Your task to perform on an android device: Empty the shopping cart on amazon. Image 0: 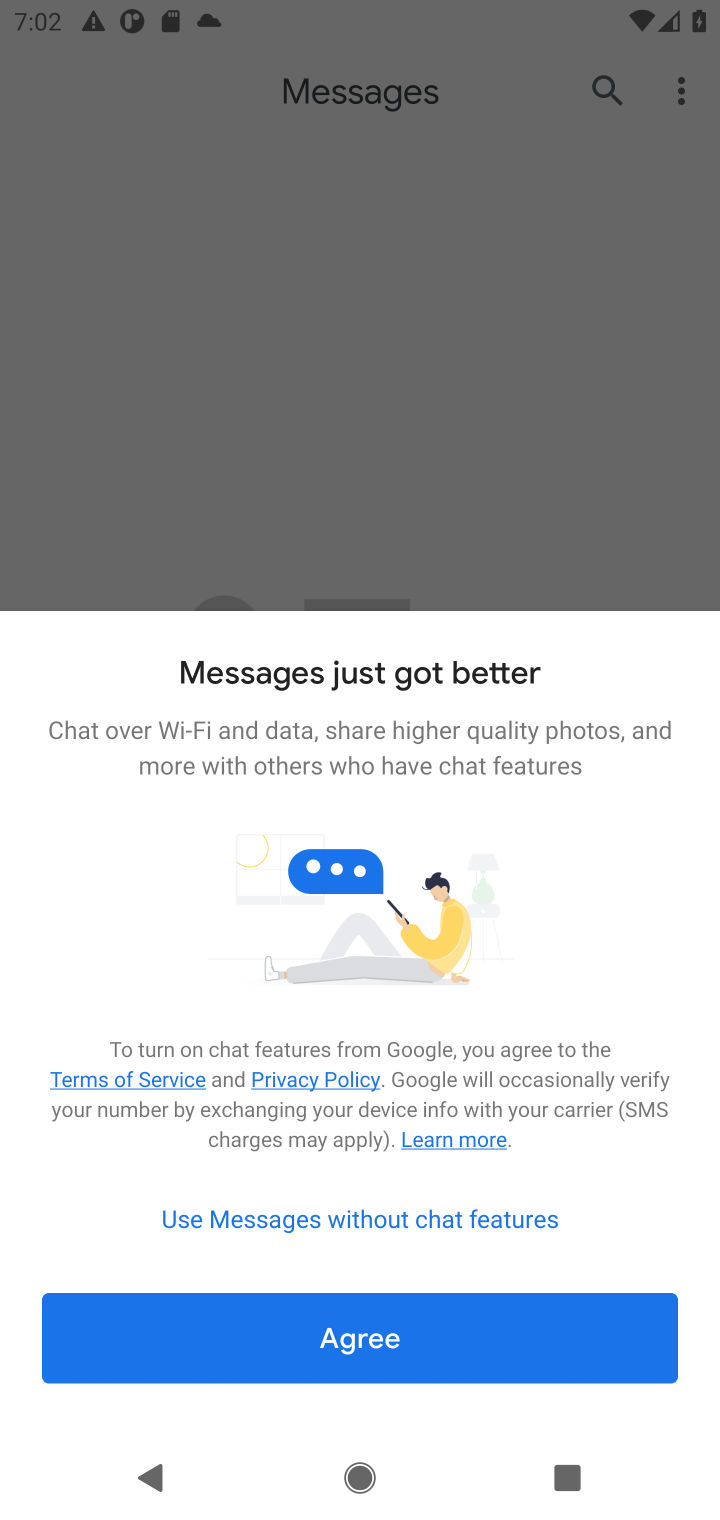
Step 0: press home button
Your task to perform on an android device: Empty the shopping cart on amazon. Image 1: 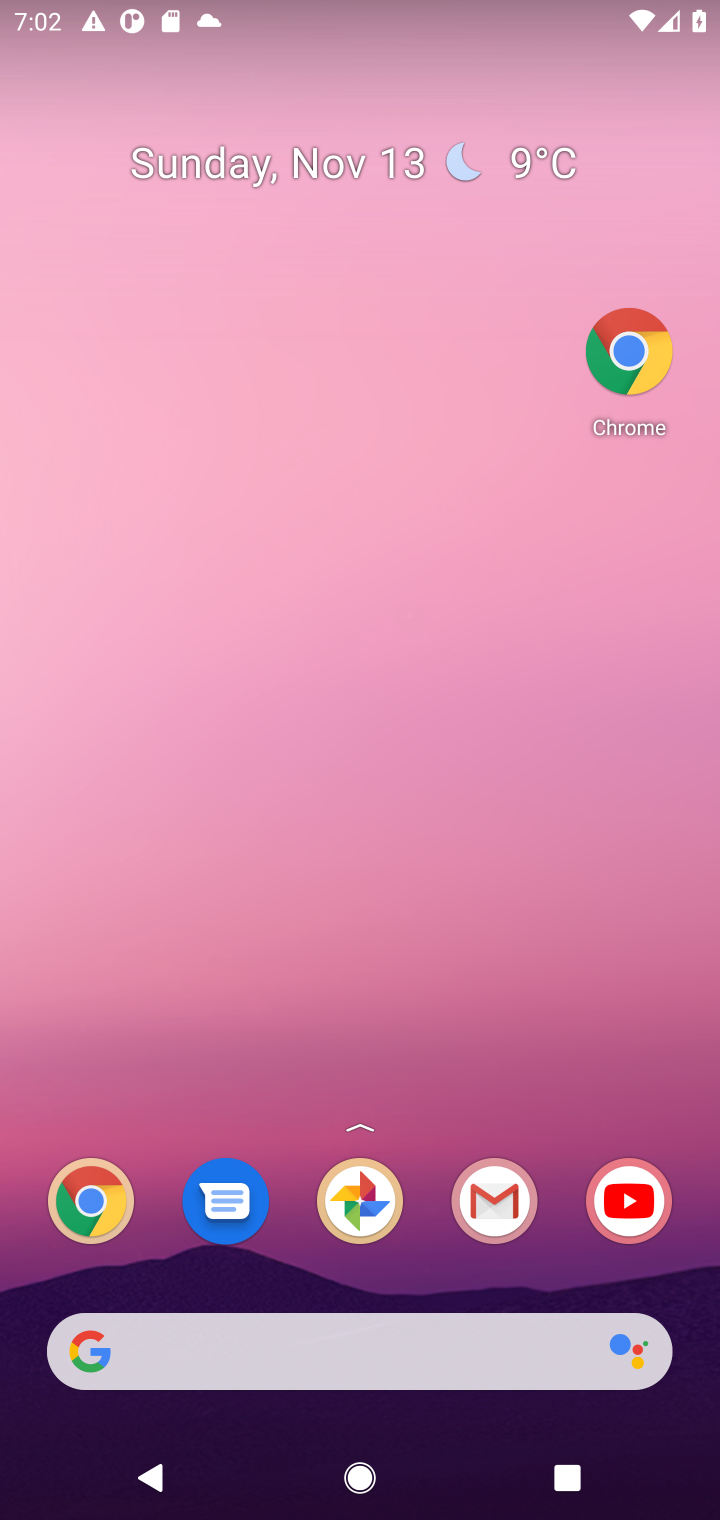
Step 1: drag from (430, 706) to (419, 297)
Your task to perform on an android device: Empty the shopping cart on amazon. Image 2: 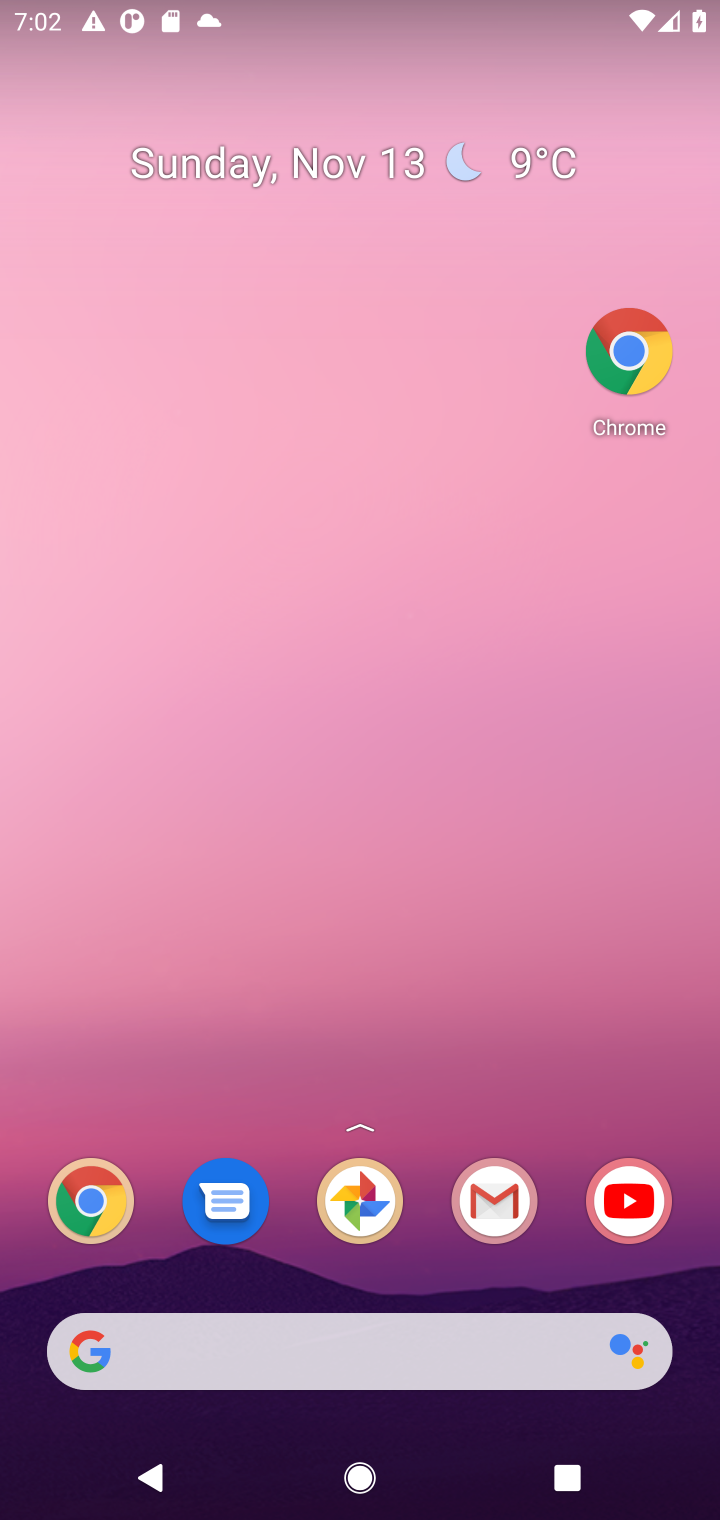
Step 2: drag from (442, 1216) to (385, 56)
Your task to perform on an android device: Empty the shopping cart on amazon. Image 3: 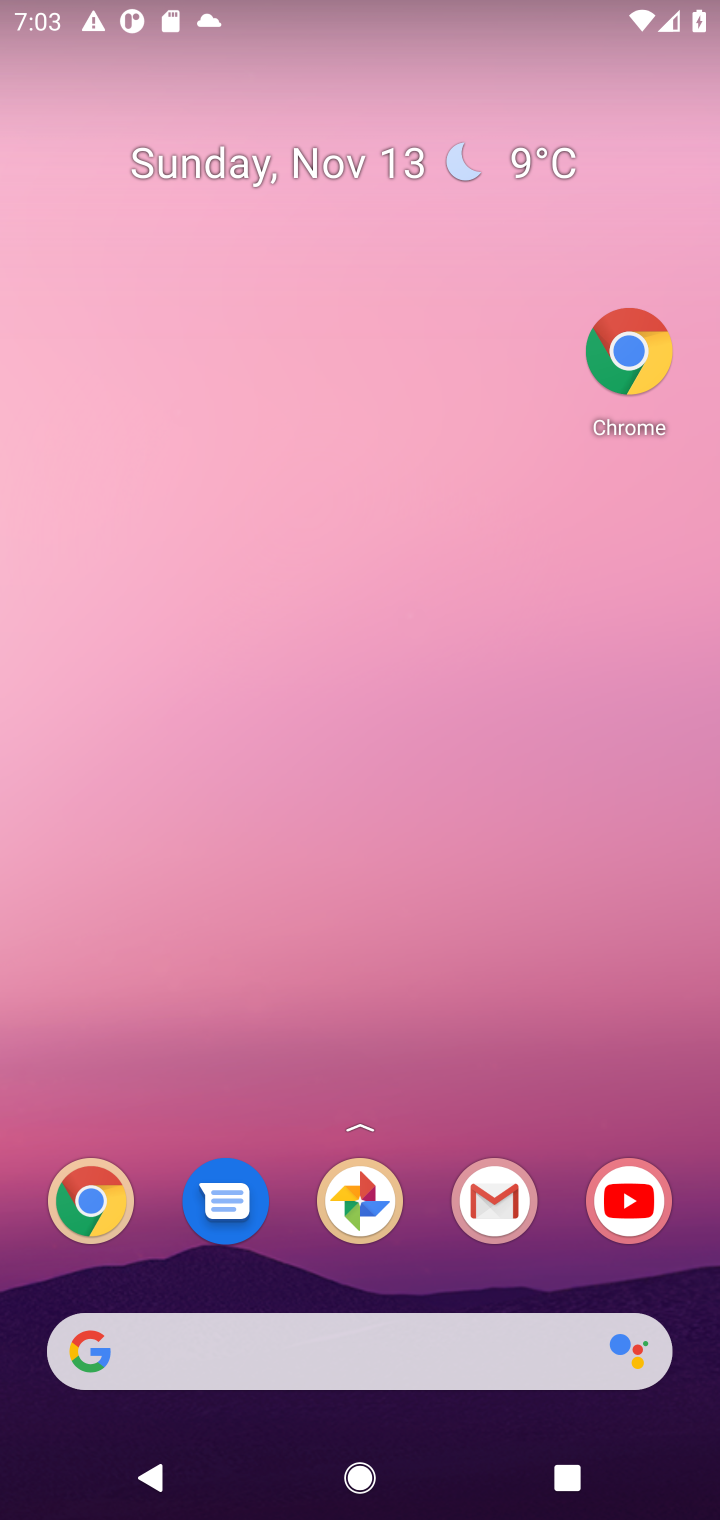
Step 3: drag from (419, 1252) to (241, 181)
Your task to perform on an android device: Empty the shopping cart on amazon. Image 4: 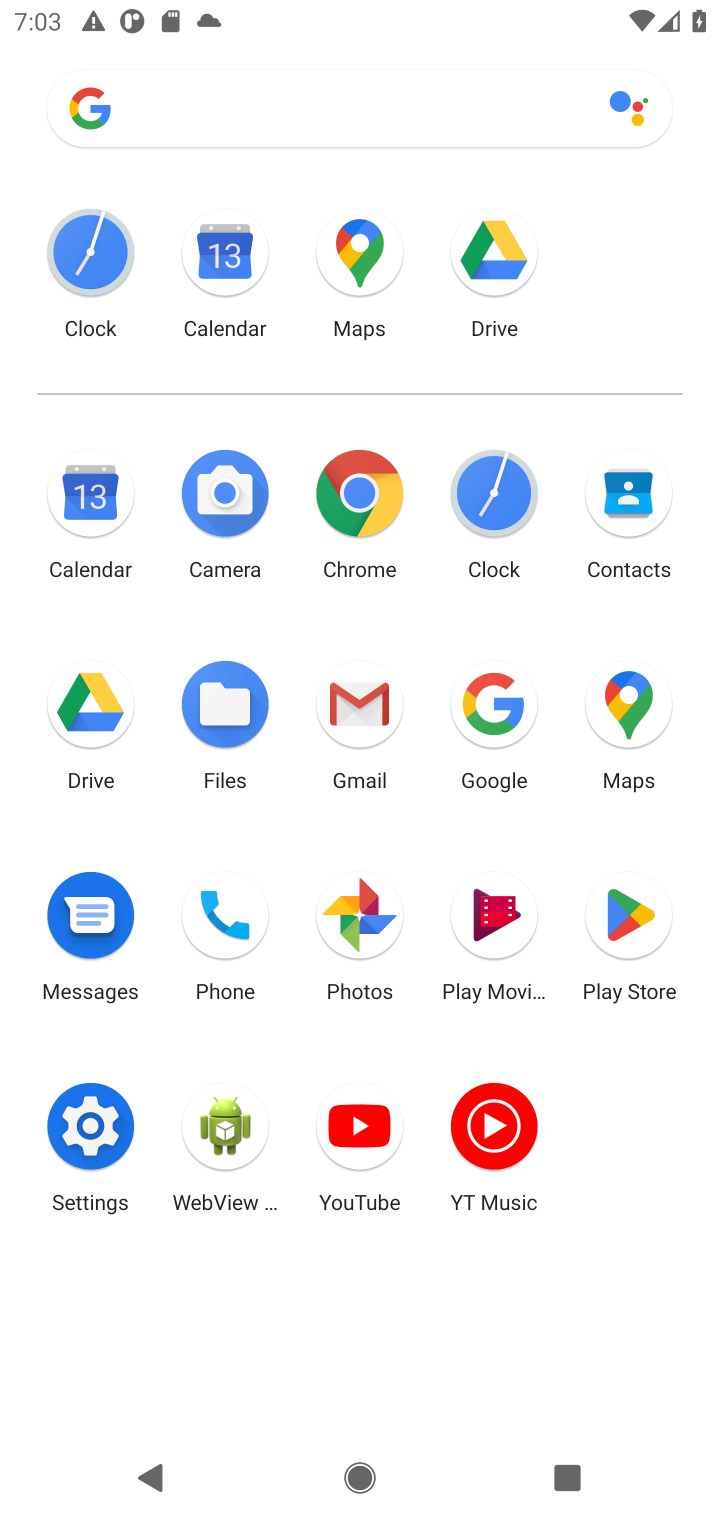
Step 4: click (353, 499)
Your task to perform on an android device: Empty the shopping cart on amazon. Image 5: 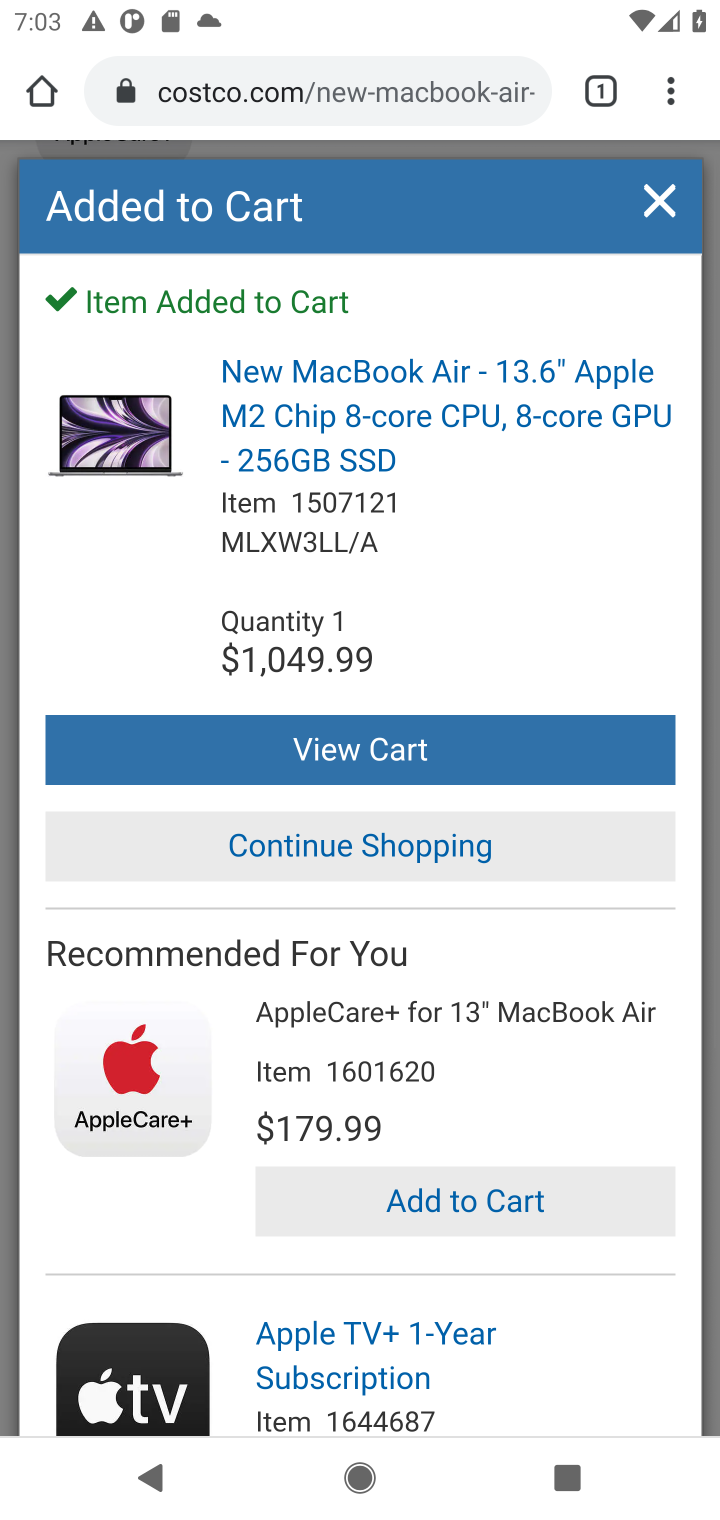
Step 5: click (382, 112)
Your task to perform on an android device: Empty the shopping cart on amazon. Image 6: 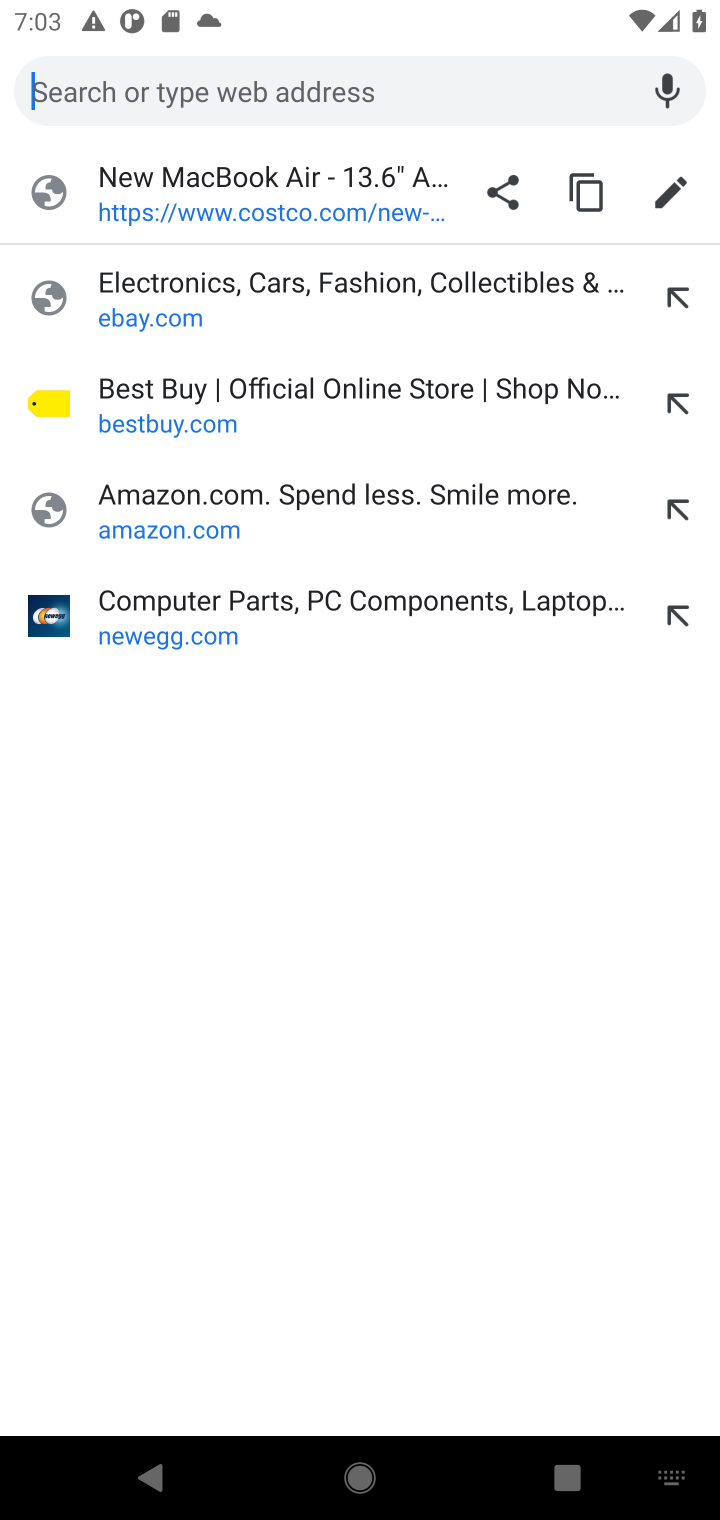
Step 6: type "amazon.com"
Your task to perform on an android device: Empty the shopping cart on amazon. Image 7: 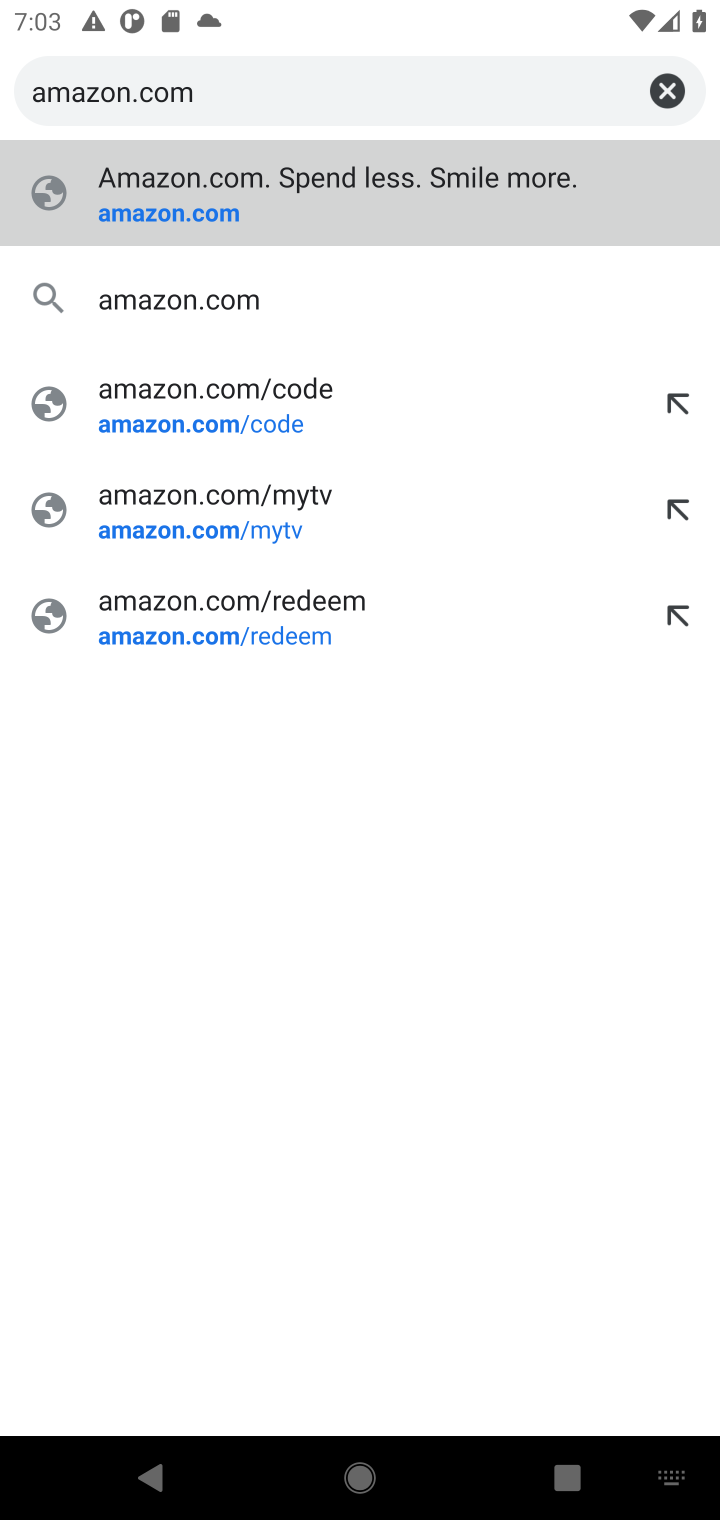
Step 7: press enter
Your task to perform on an android device: Empty the shopping cart on amazon. Image 8: 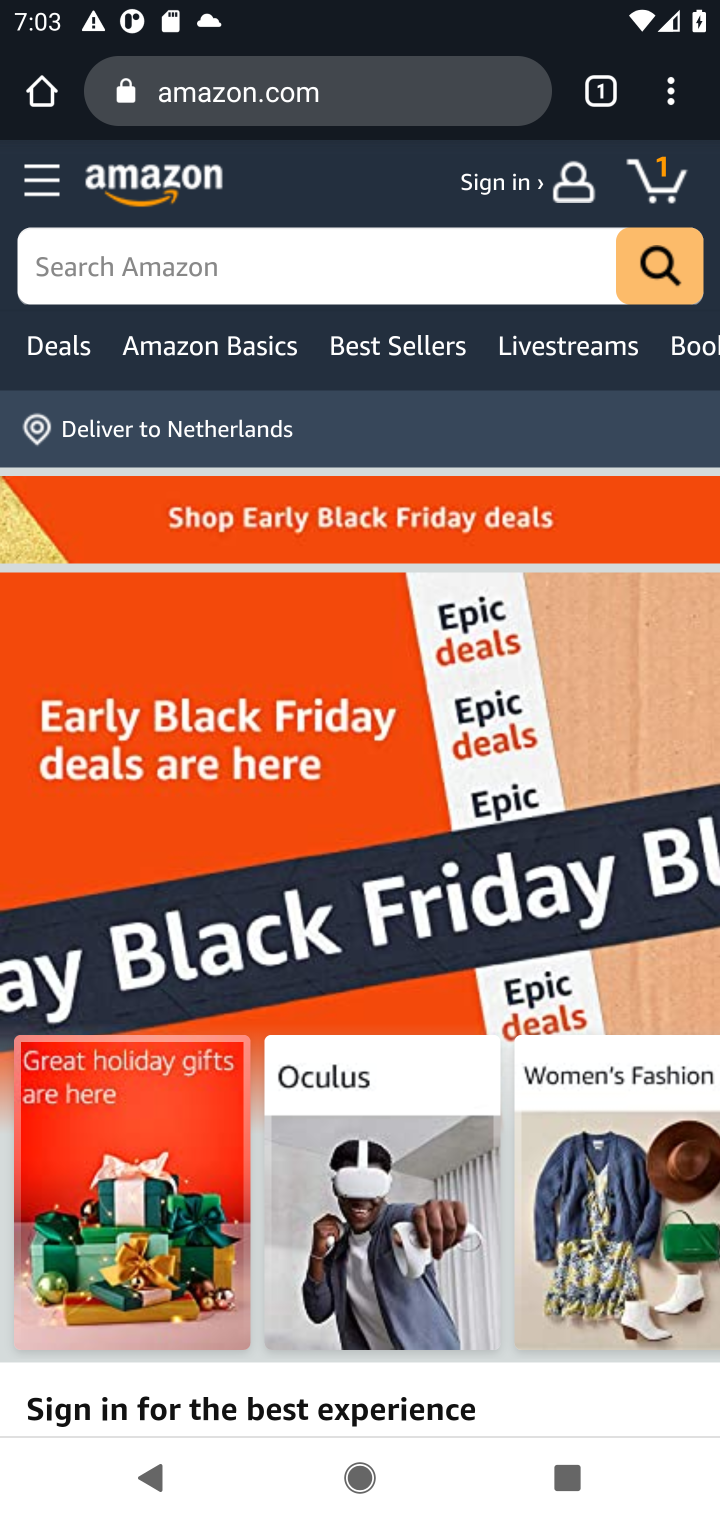
Step 8: click (657, 183)
Your task to perform on an android device: Empty the shopping cart on amazon. Image 9: 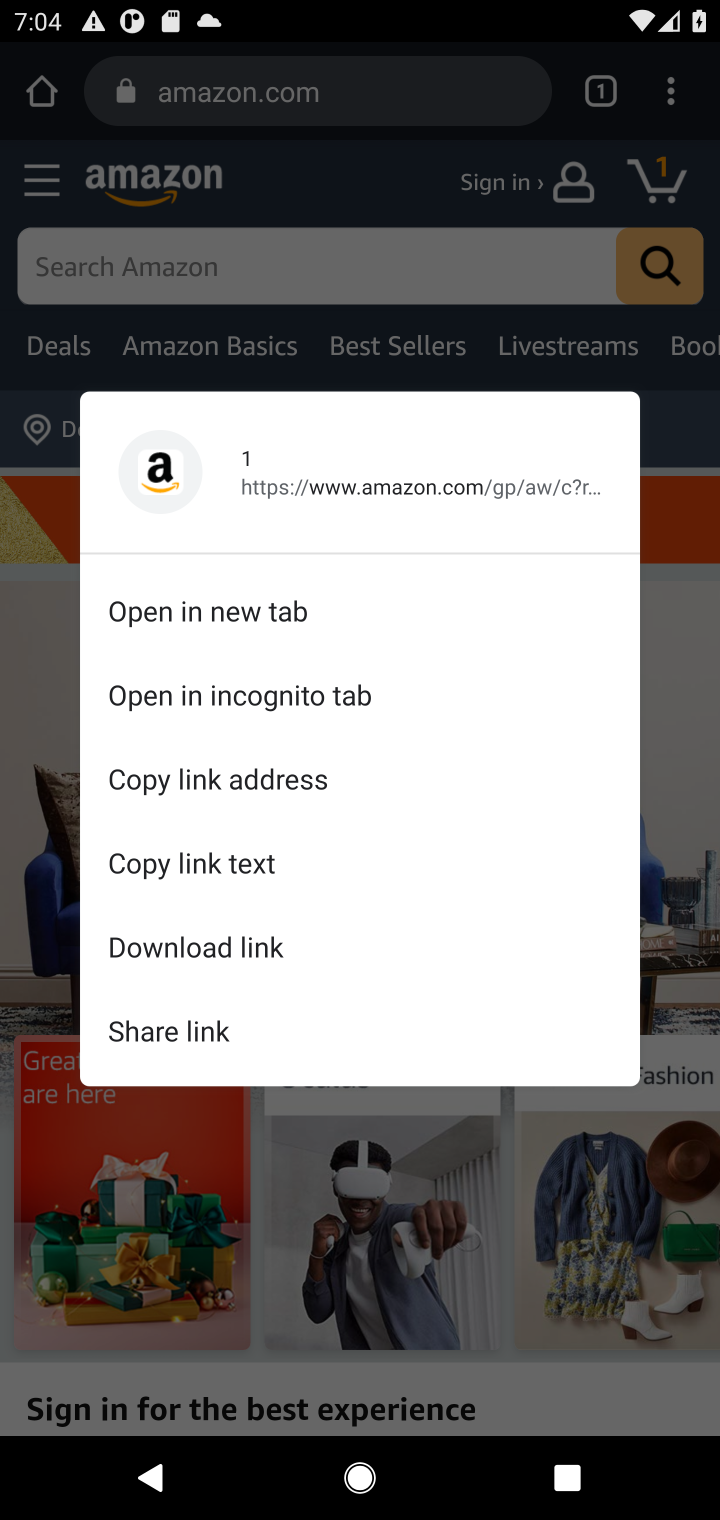
Step 9: click (477, 283)
Your task to perform on an android device: Empty the shopping cart on amazon. Image 10: 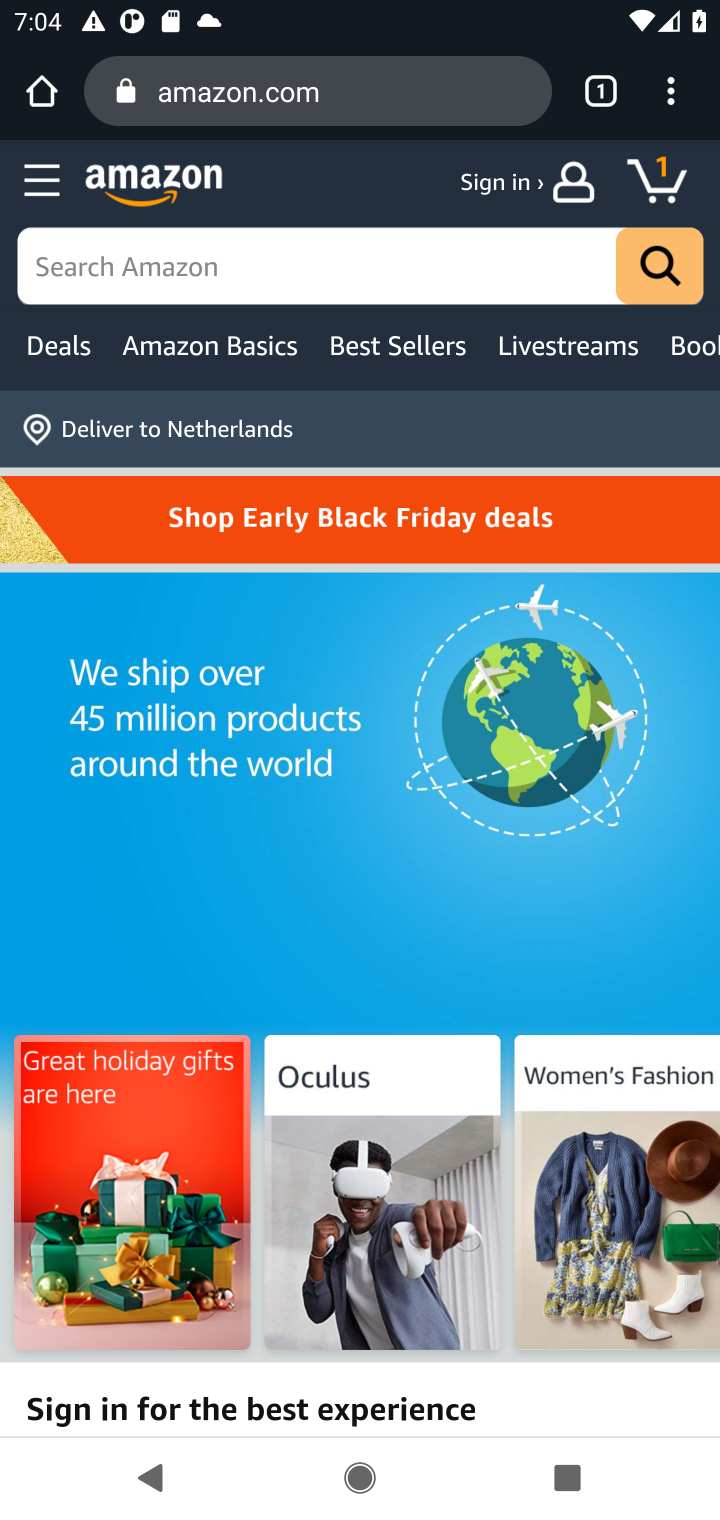
Step 10: click (659, 169)
Your task to perform on an android device: Empty the shopping cart on amazon. Image 11: 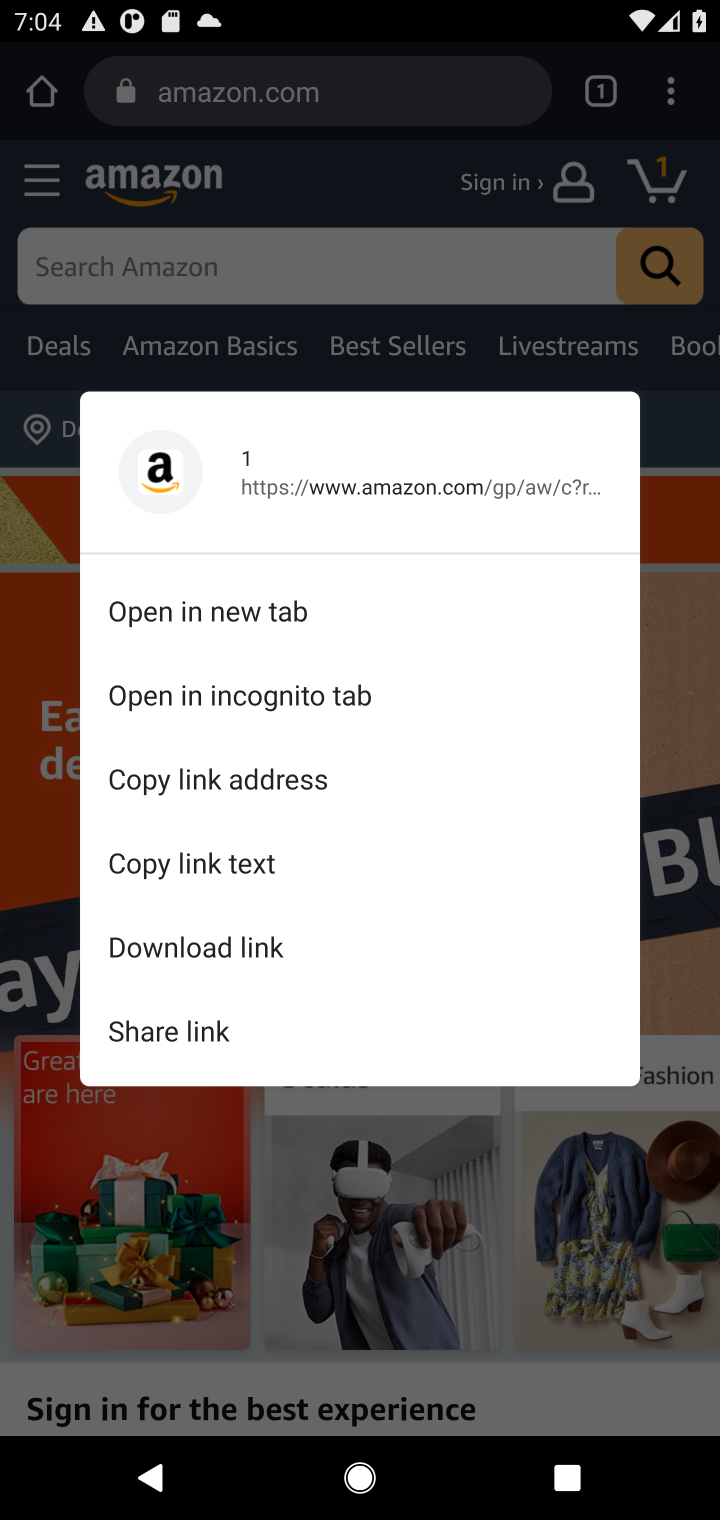
Step 11: click (612, 288)
Your task to perform on an android device: Empty the shopping cart on amazon. Image 12: 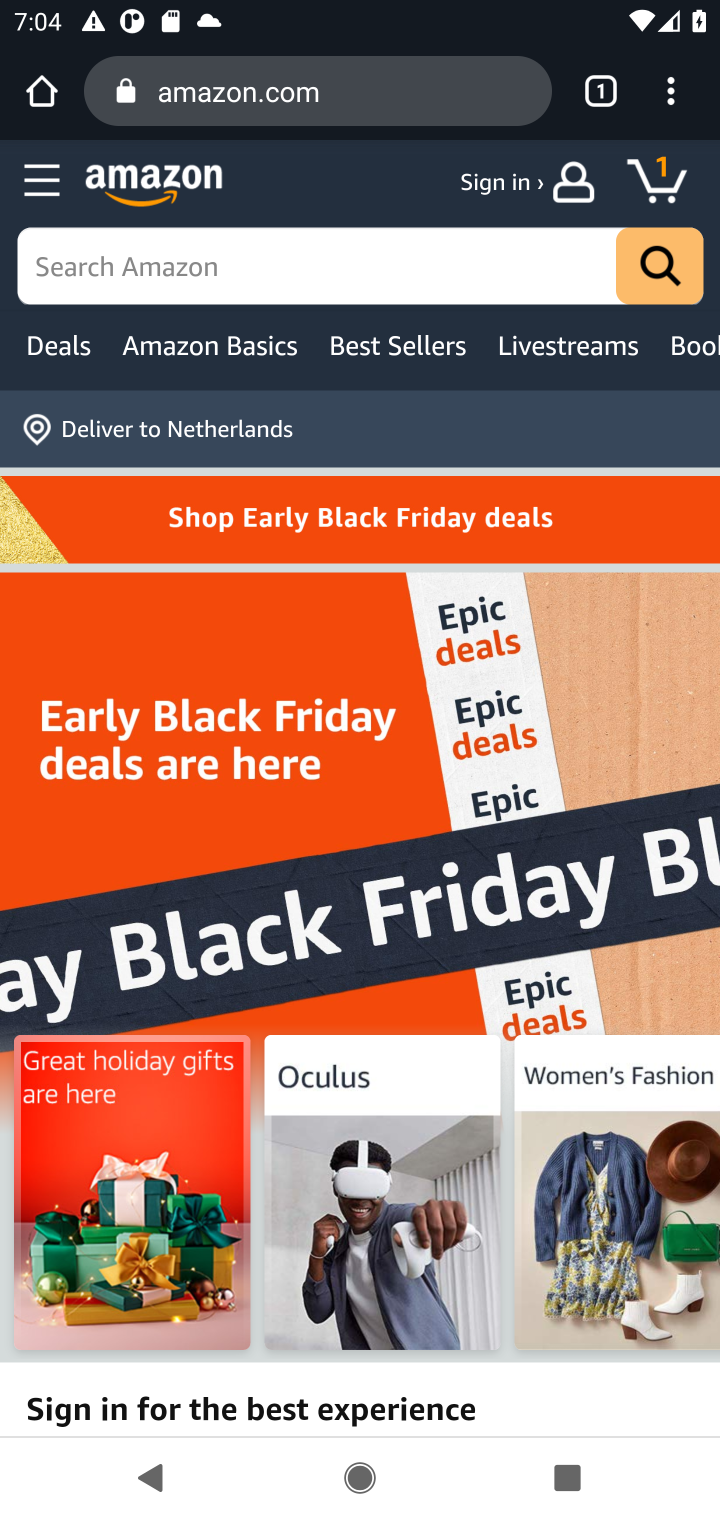
Step 12: click (653, 177)
Your task to perform on an android device: Empty the shopping cart on amazon. Image 13: 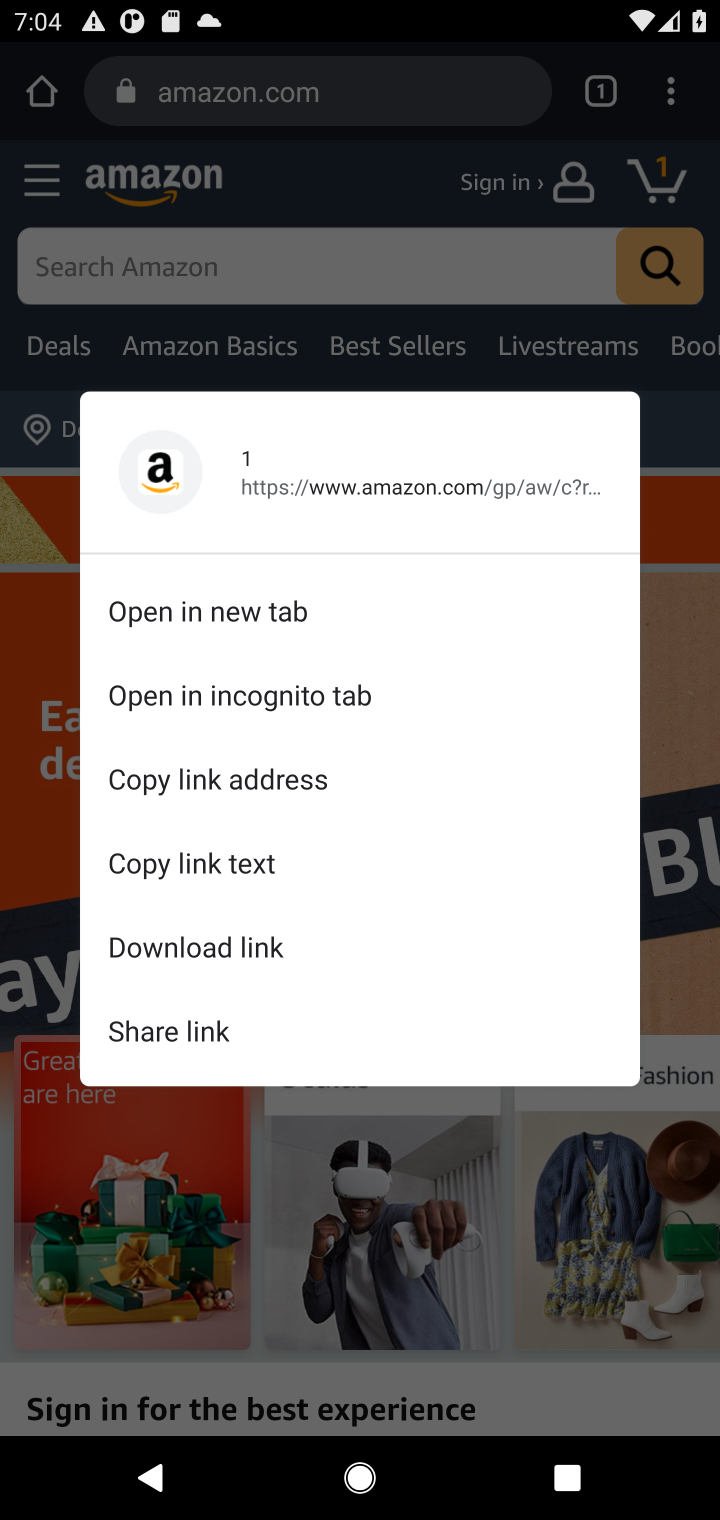
Step 13: click (662, 180)
Your task to perform on an android device: Empty the shopping cart on amazon. Image 14: 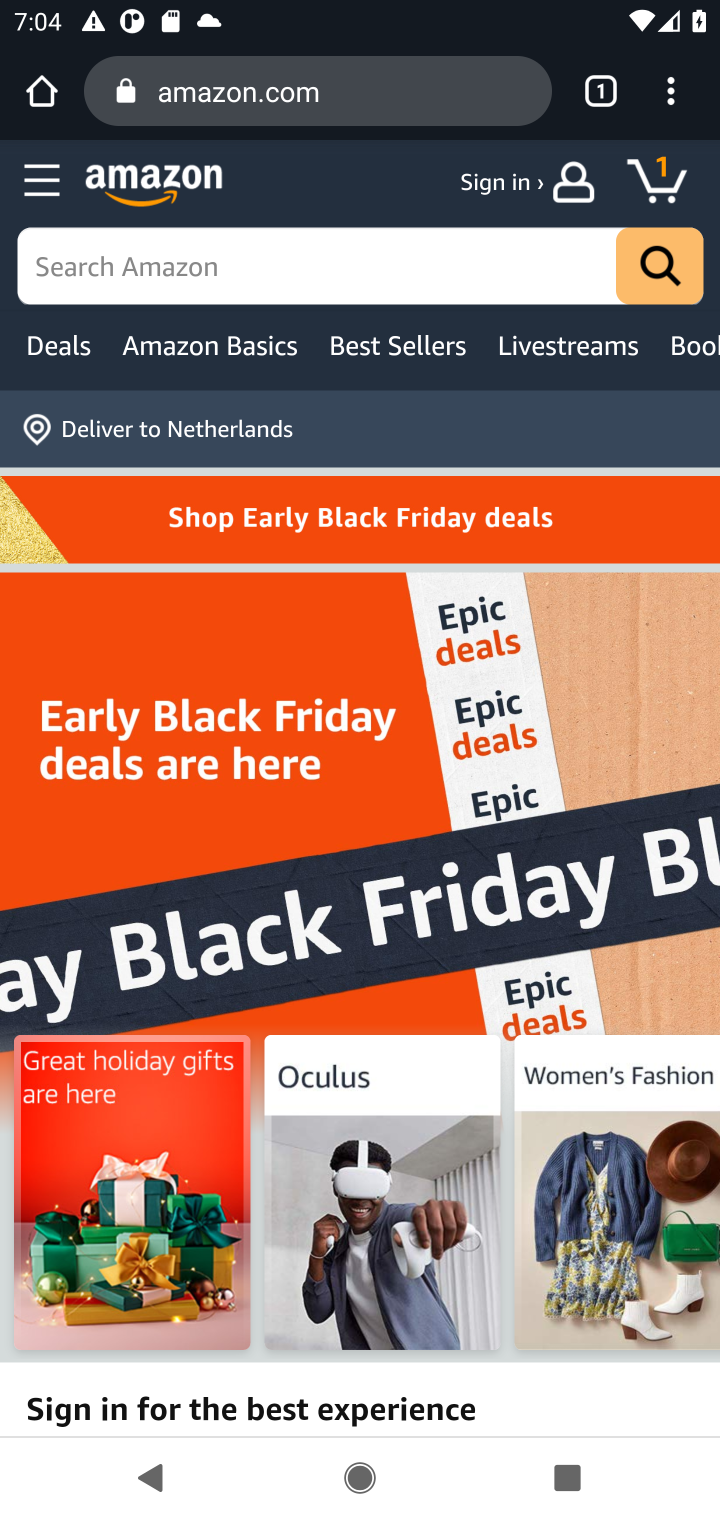
Step 14: click (662, 180)
Your task to perform on an android device: Empty the shopping cart on amazon. Image 15: 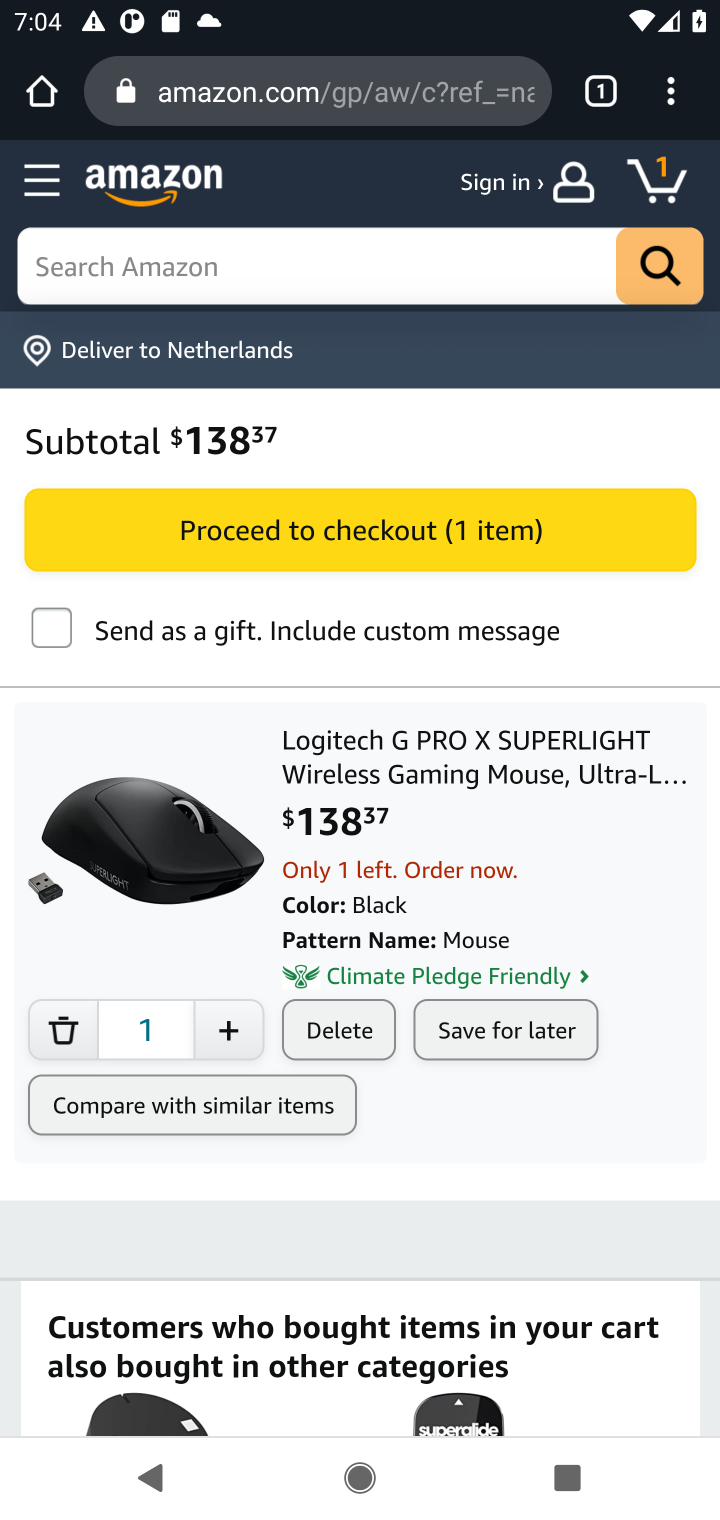
Step 15: click (73, 1025)
Your task to perform on an android device: Empty the shopping cart on amazon. Image 16: 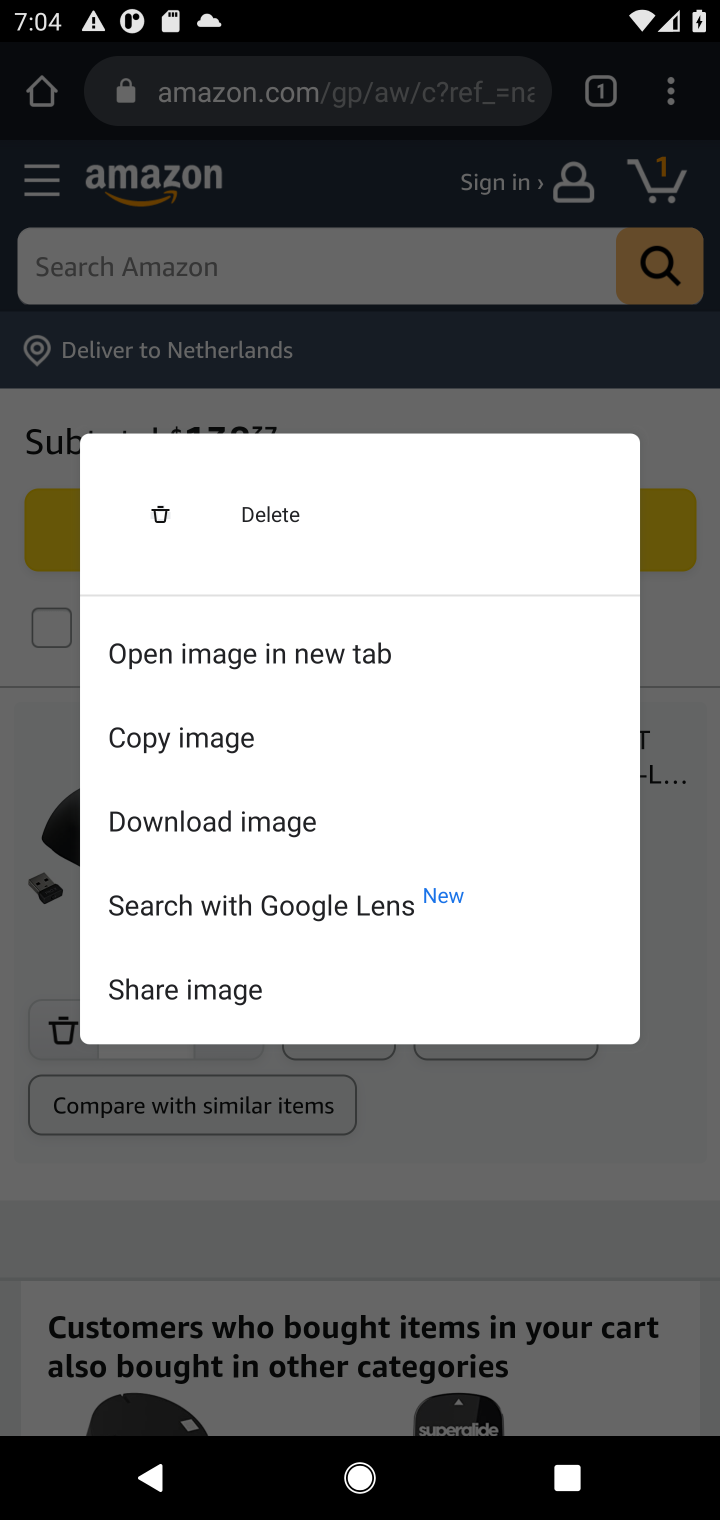
Step 16: click (47, 1051)
Your task to perform on an android device: Empty the shopping cart on amazon. Image 17: 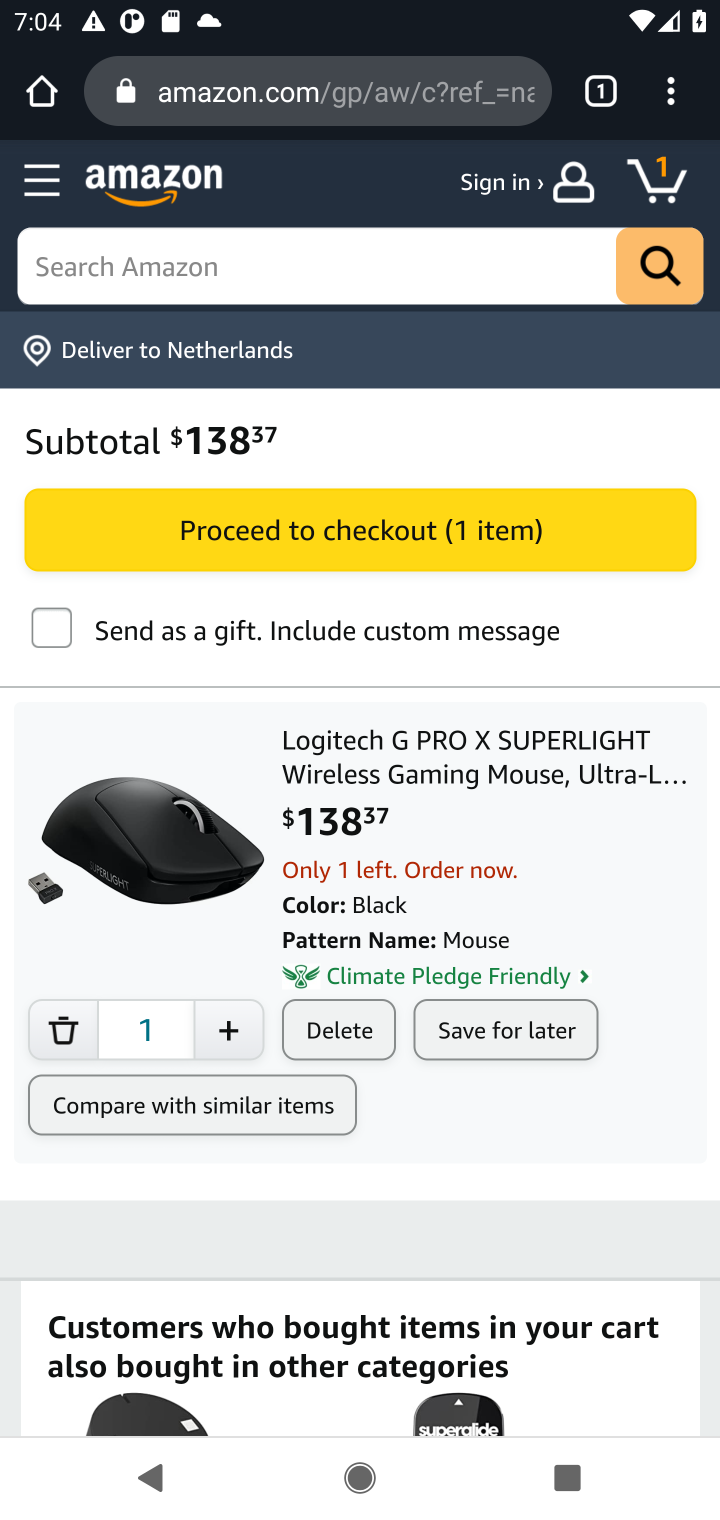
Step 17: click (73, 1040)
Your task to perform on an android device: Empty the shopping cart on amazon. Image 18: 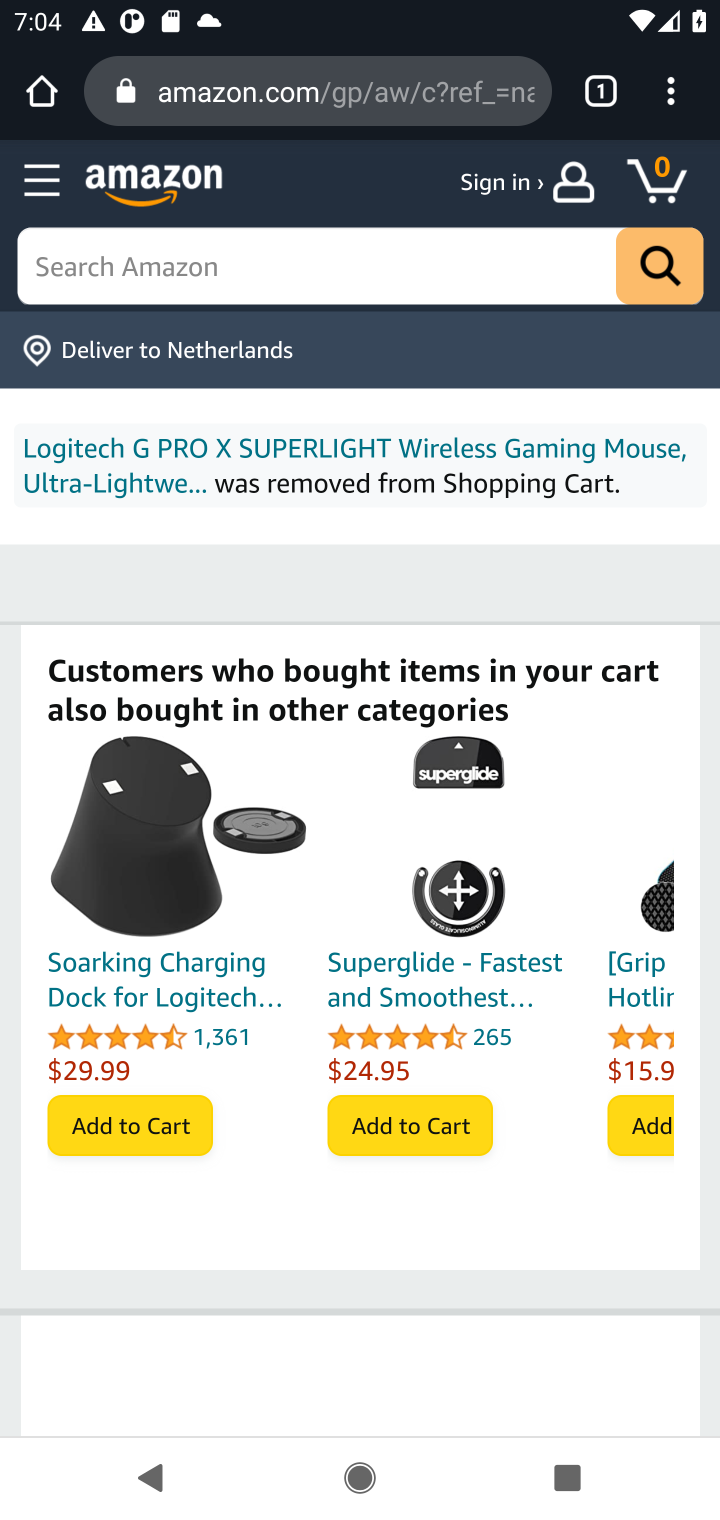
Step 18: task complete